Your task to perform on an android device: turn on translation in the chrome app Image 0: 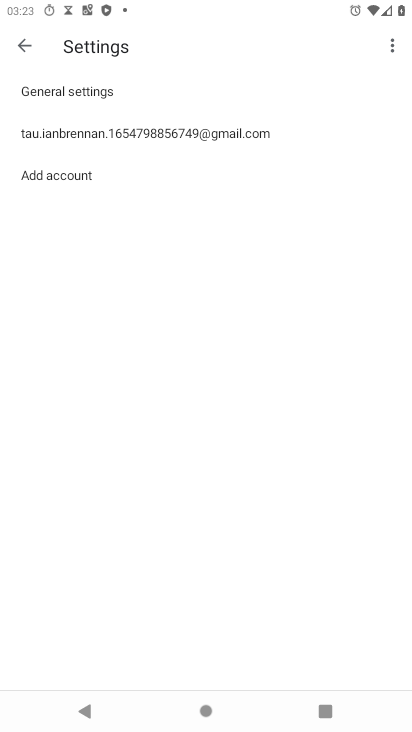
Step 0: press home button
Your task to perform on an android device: turn on translation in the chrome app Image 1: 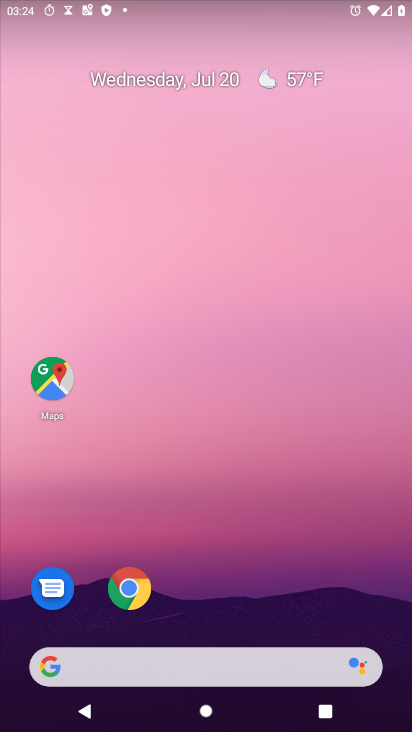
Step 1: drag from (164, 576) to (216, 36)
Your task to perform on an android device: turn on translation in the chrome app Image 2: 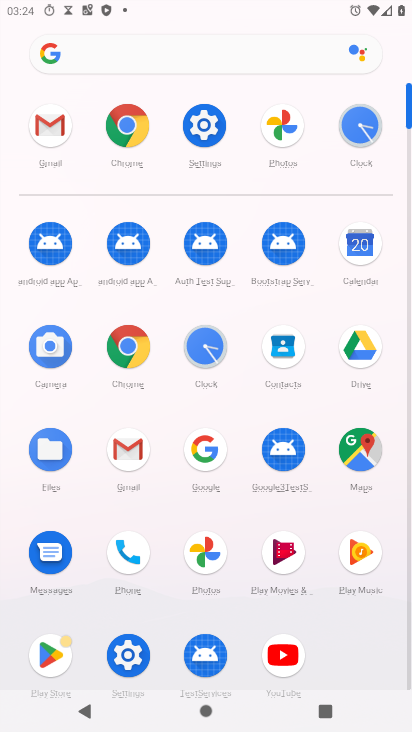
Step 2: click (125, 335)
Your task to perform on an android device: turn on translation in the chrome app Image 3: 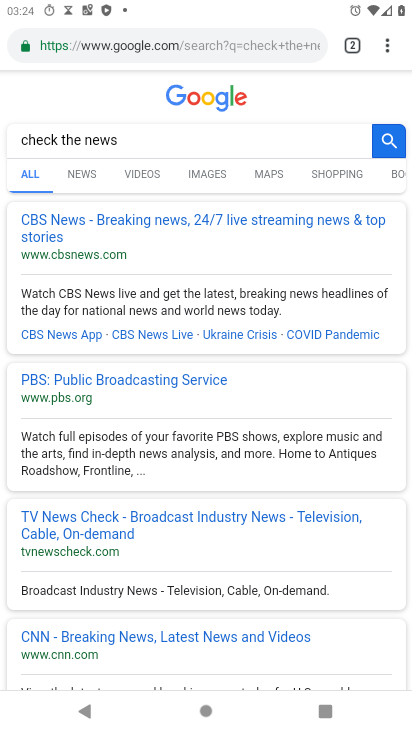
Step 3: drag from (385, 42) to (255, 515)
Your task to perform on an android device: turn on translation in the chrome app Image 4: 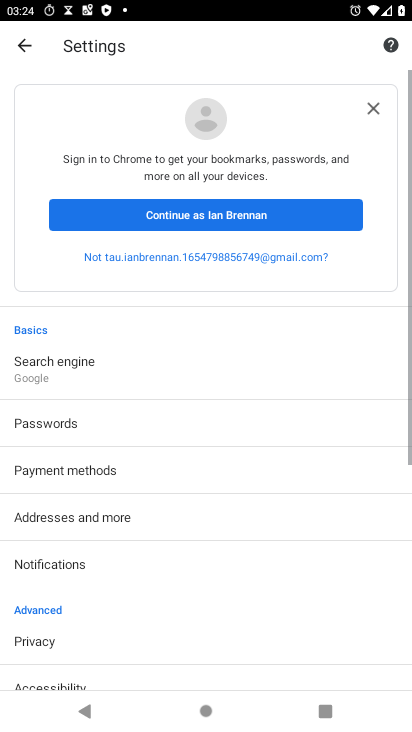
Step 4: drag from (166, 639) to (206, 171)
Your task to perform on an android device: turn on translation in the chrome app Image 5: 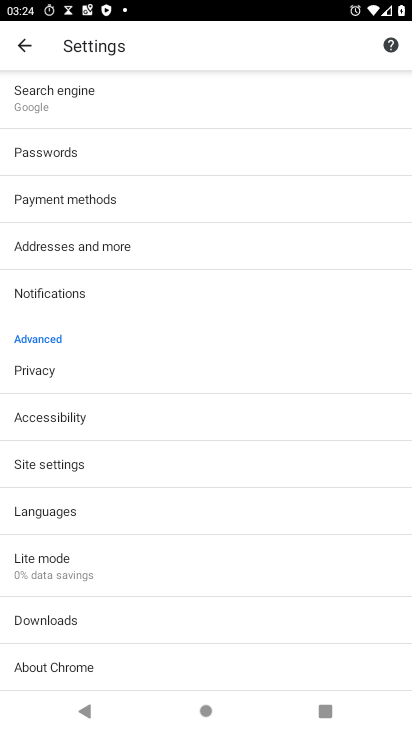
Step 5: click (103, 516)
Your task to perform on an android device: turn on translation in the chrome app Image 6: 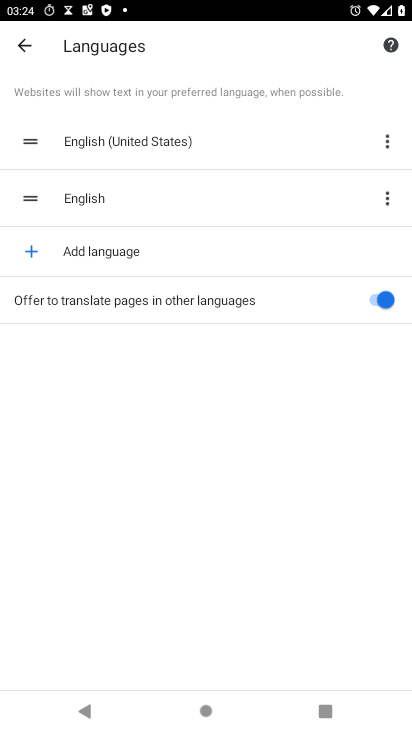
Step 6: task complete